Your task to perform on an android device: toggle data saver in the chrome app Image 0: 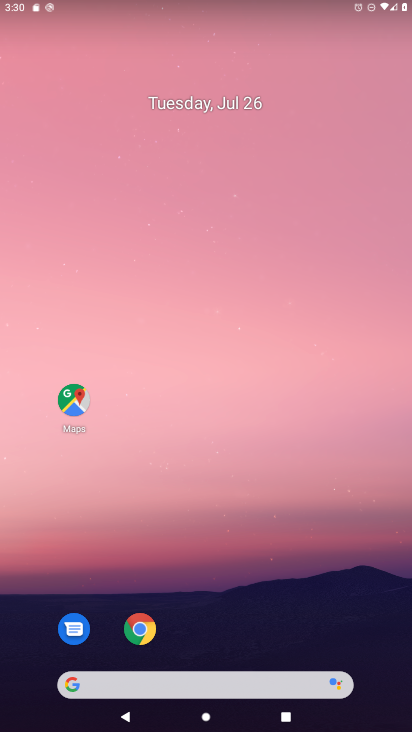
Step 0: click (154, 628)
Your task to perform on an android device: toggle data saver in the chrome app Image 1: 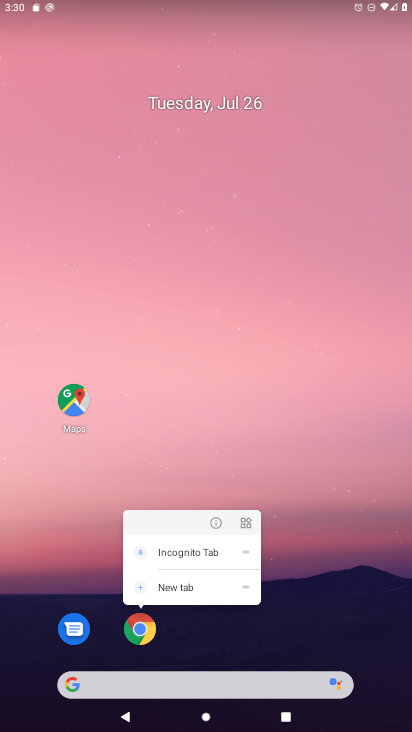
Step 1: click (137, 637)
Your task to perform on an android device: toggle data saver in the chrome app Image 2: 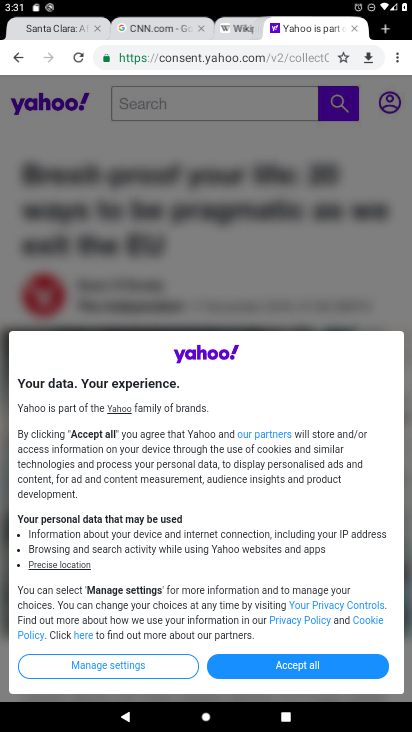
Step 2: click (399, 50)
Your task to perform on an android device: toggle data saver in the chrome app Image 3: 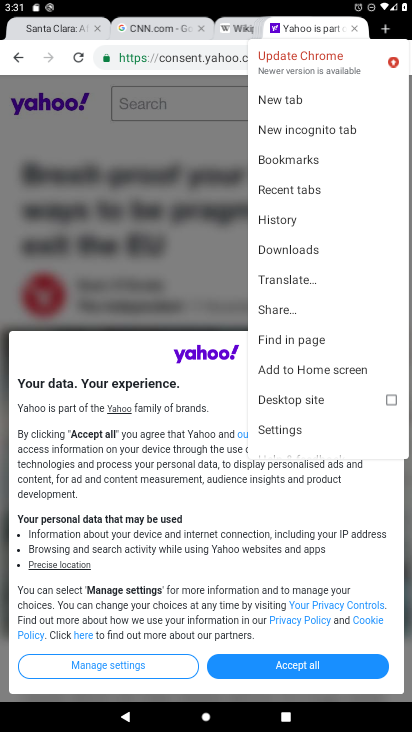
Step 3: click (316, 428)
Your task to perform on an android device: toggle data saver in the chrome app Image 4: 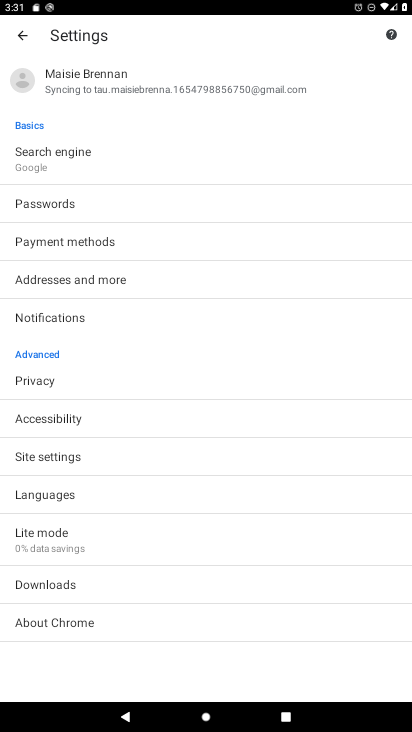
Step 4: click (94, 541)
Your task to perform on an android device: toggle data saver in the chrome app Image 5: 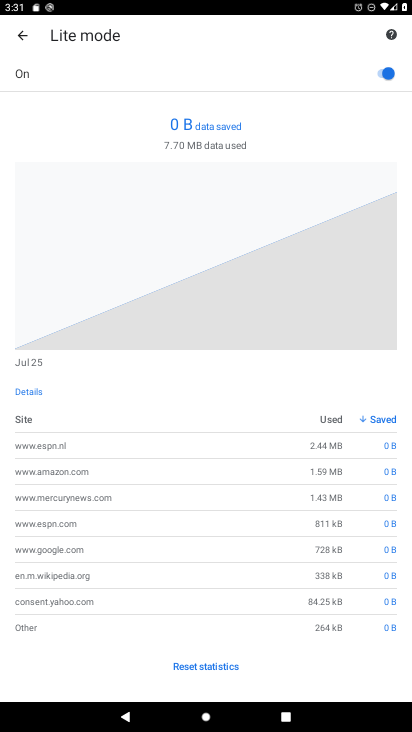
Step 5: click (370, 72)
Your task to perform on an android device: toggle data saver in the chrome app Image 6: 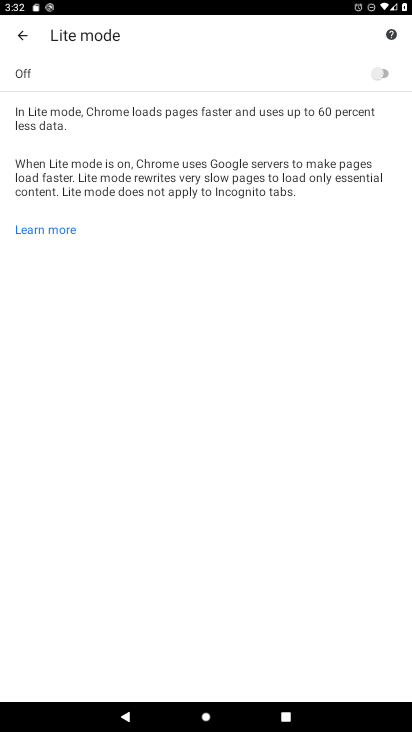
Step 6: task complete